Your task to perform on an android device: refresh tabs in the chrome app Image 0: 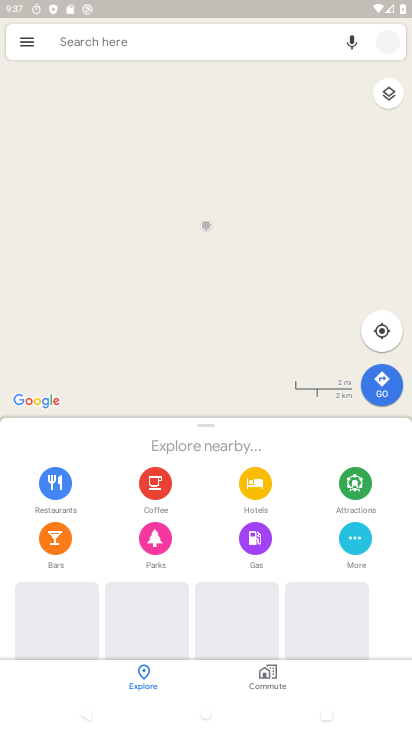
Step 0: press home button
Your task to perform on an android device: refresh tabs in the chrome app Image 1: 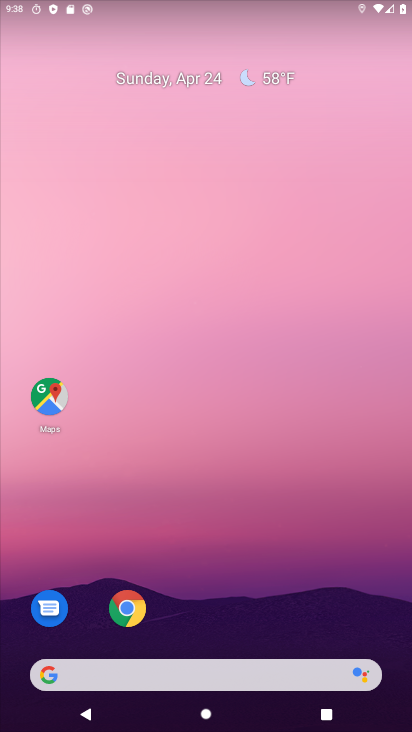
Step 1: drag from (346, 603) to (349, 95)
Your task to perform on an android device: refresh tabs in the chrome app Image 2: 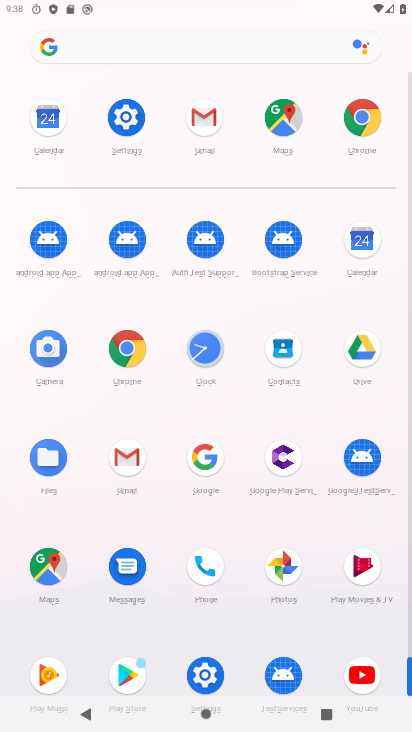
Step 2: click (361, 112)
Your task to perform on an android device: refresh tabs in the chrome app Image 3: 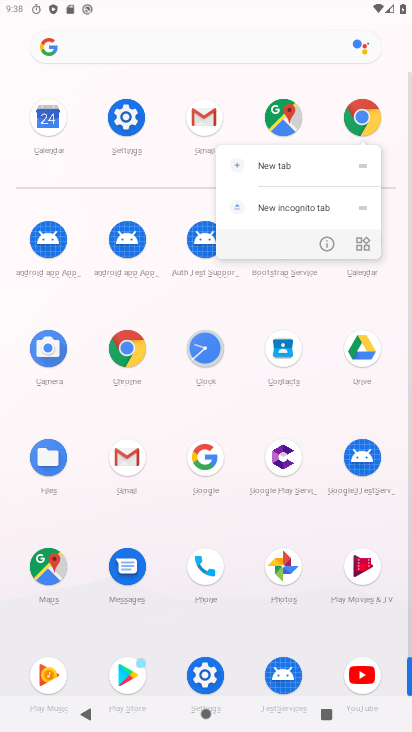
Step 3: click (367, 101)
Your task to perform on an android device: refresh tabs in the chrome app Image 4: 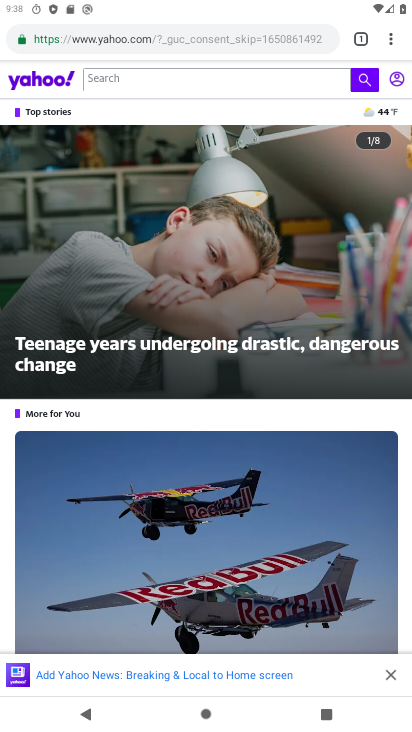
Step 4: click (390, 40)
Your task to perform on an android device: refresh tabs in the chrome app Image 5: 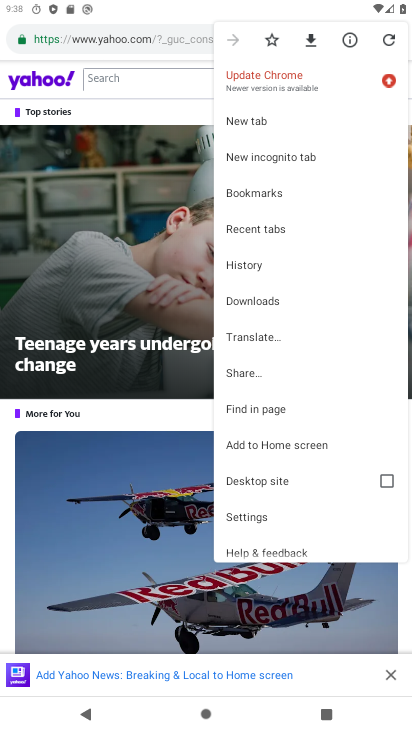
Step 5: click (393, 37)
Your task to perform on an android device: refresh tabs in the chrome app Image 6: 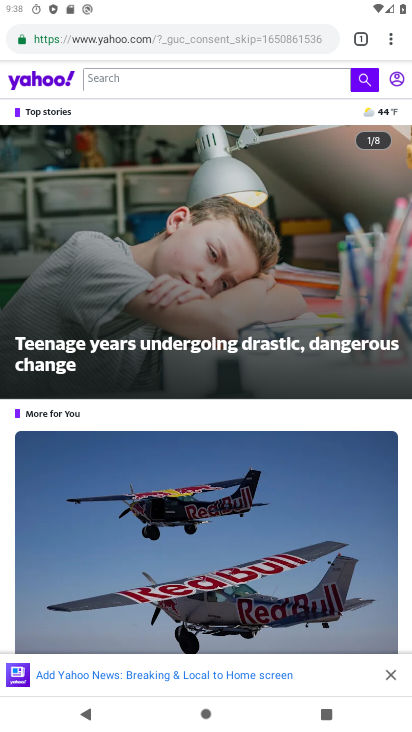
Step 6: task complete